Your task to perform on an android device: Go to battery settings Image 0: 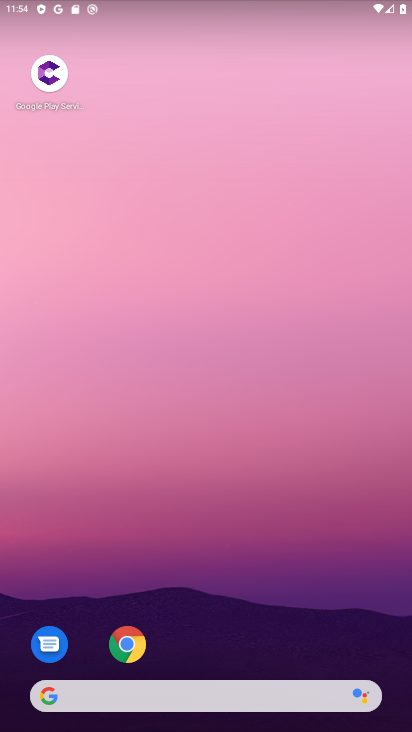
Step 0: drag from (247, 586) to (165, 128)
Your task to perform on an android device: Go to battery settings Image 1: 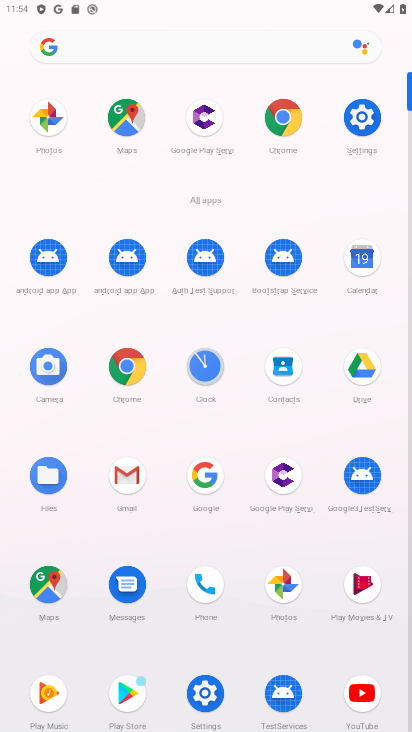
Step 1: click (364, 113)
Your task to perform on an android device: Go to battery settings Image 2: 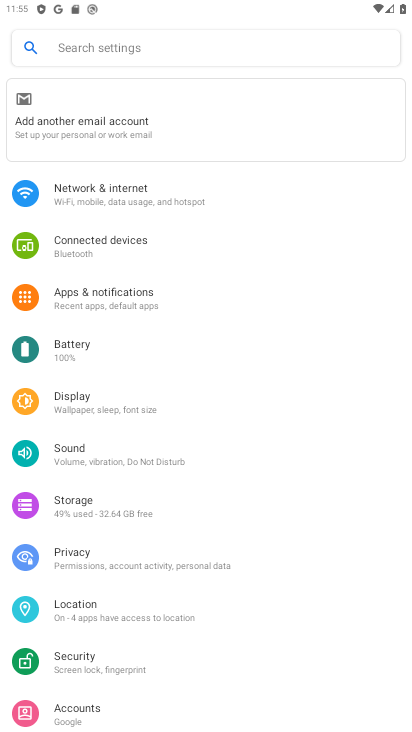
Step 2: click (68, 343)
Your task to perform on an android device: Go to battery settings Image 3: 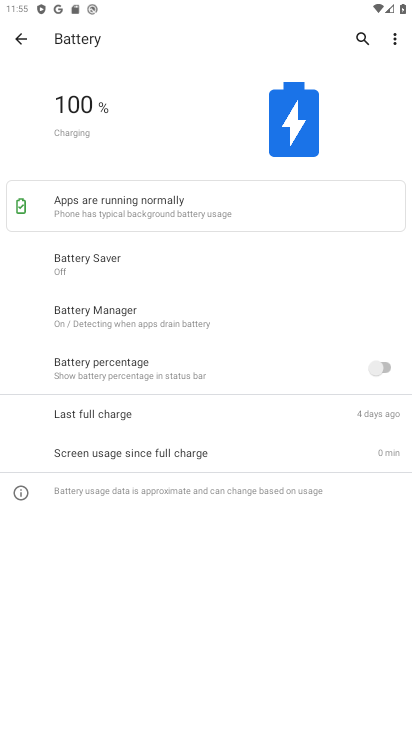
Step 3: task complete